Your task to perform on an android device: turn pop-ups on in chrome Image 0: 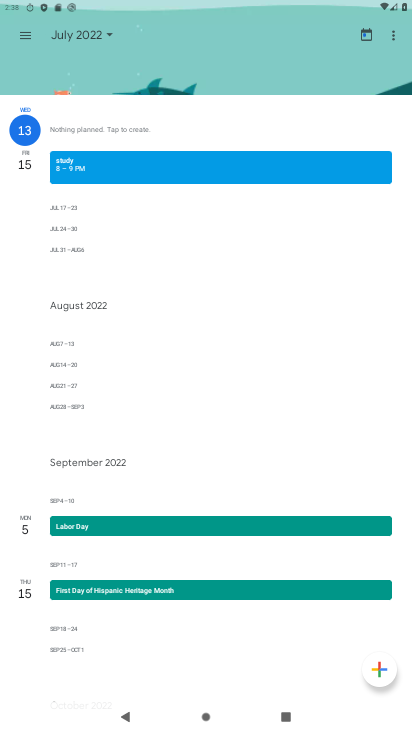
Step 0: press home button
Your task to perform on an android device: turn pop-ups on in chrome Image 1: 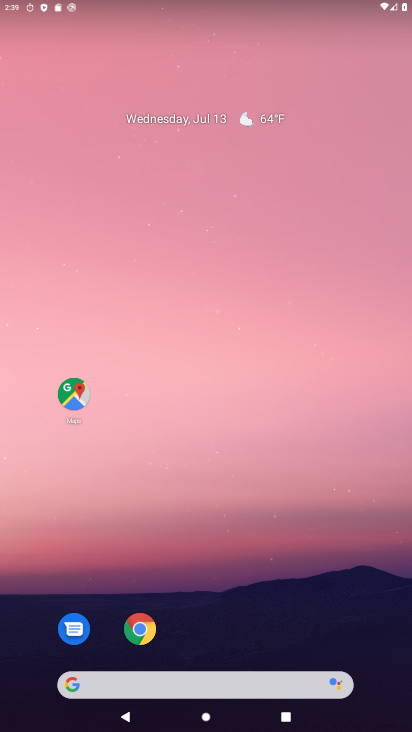
Step 1: drag from (280, 678) to (399, 0)
Your task to perform on an android device: turn pop-ups on in chrome Image 2: 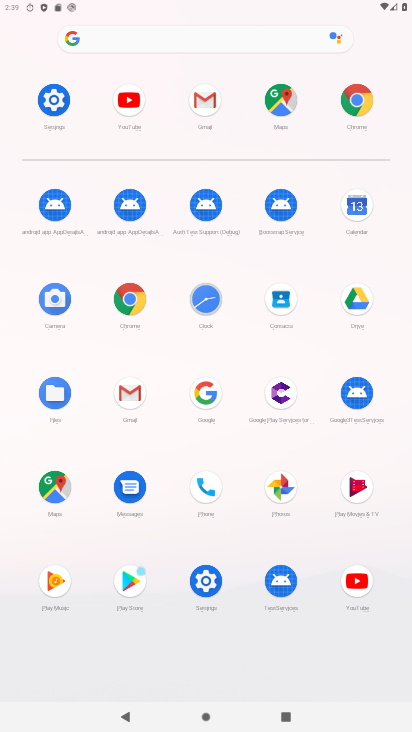
Step 2: click (126, 293)
Your task to perform on an android device: turn pop-ups on in chrome Image 3: 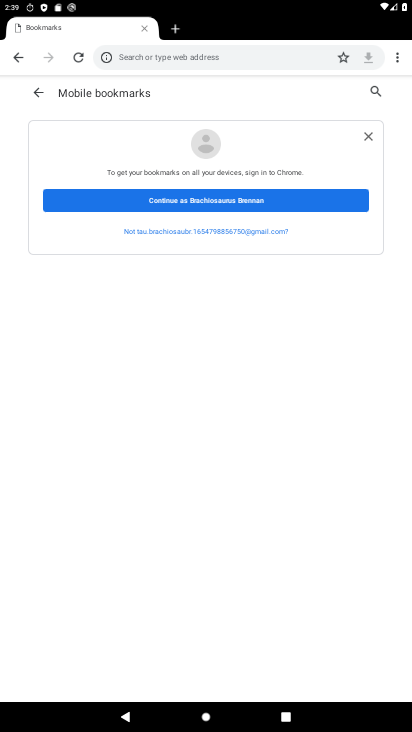
Step 3: drag from (400, 47) to (318, 277)
Your task to perform on an android device: turn pop-ups on in chrome Image 4: 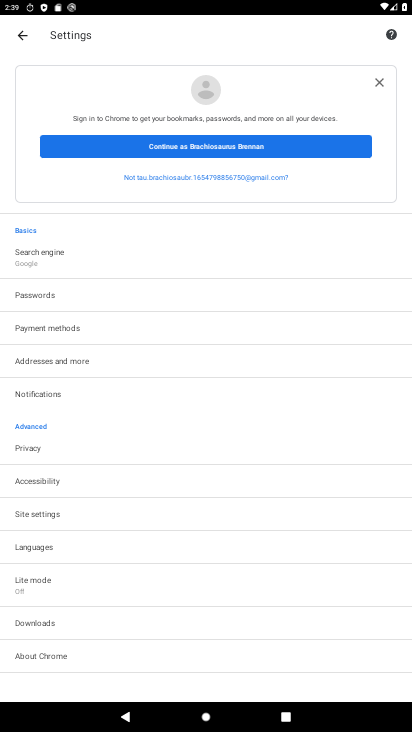
Step 4: click (74, 521)
Your task to perform on an android device: turn pop-ups on in chrome Image 5: 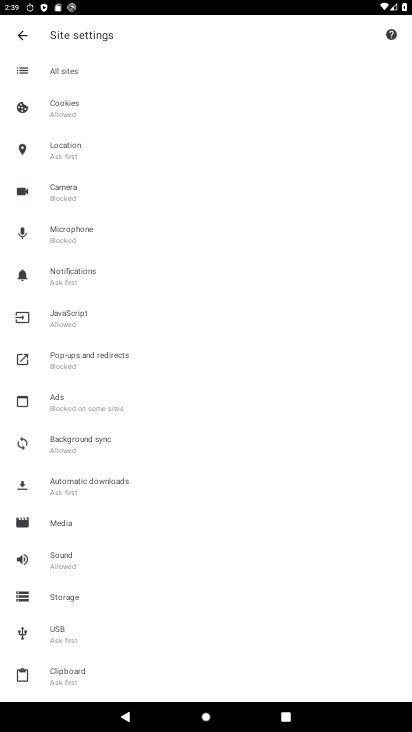
Step 5: click (97, 361)
Your task to perform on an android device: turn pop-ups on in chrome Image 6: 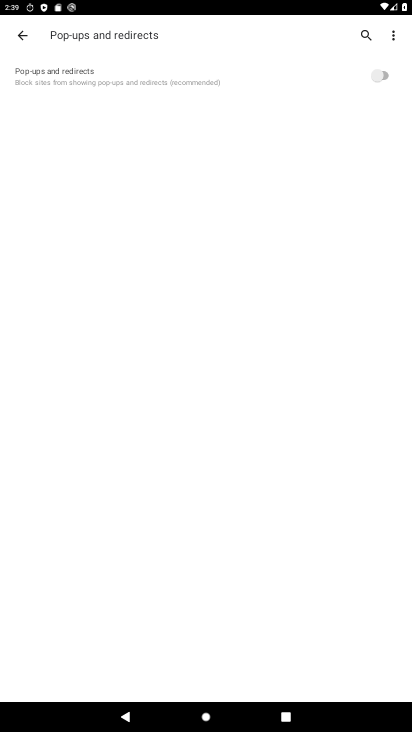
Step 6: click (383, 74)
Your task to perform on an android device: turn pop-ups on in chrome Image 7: 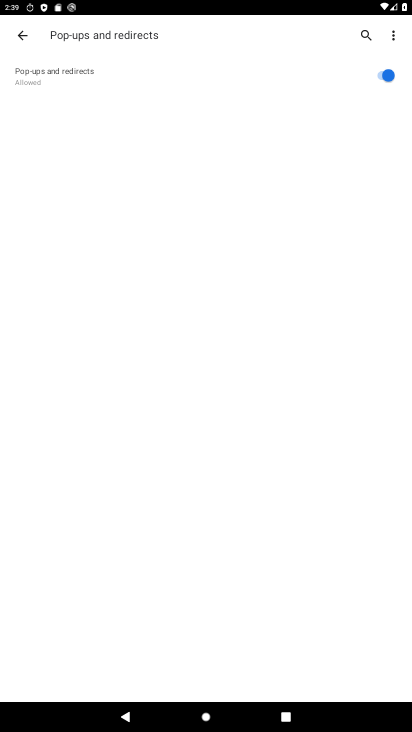
Step 7: task complete